Your task to perform on an android device: see creations saved in the google photos Image 0: 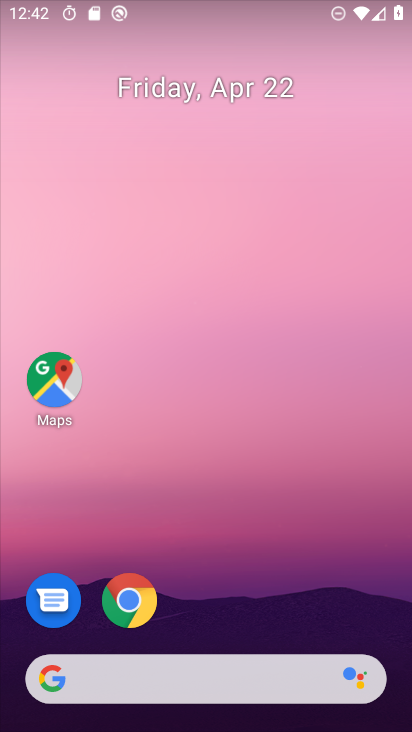
Step 0: drag from (227, 595) to (246, 56)
Your task to perform on an android device: see creations saved in the google photos Image 1: 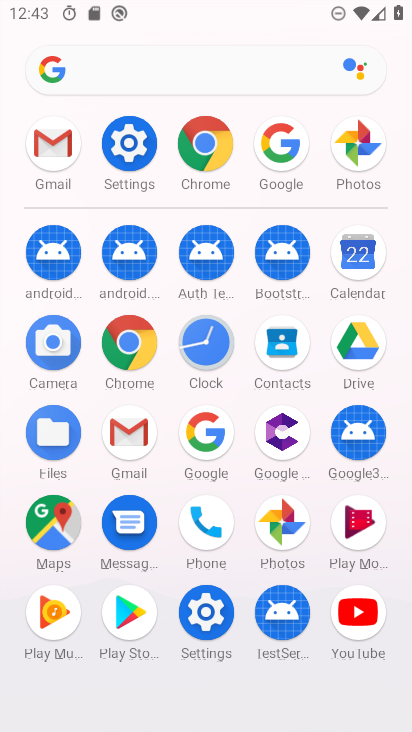
Step 1: click (358, 141)
Your task to perform on an android device: see creations saved in the google photos Image 2: 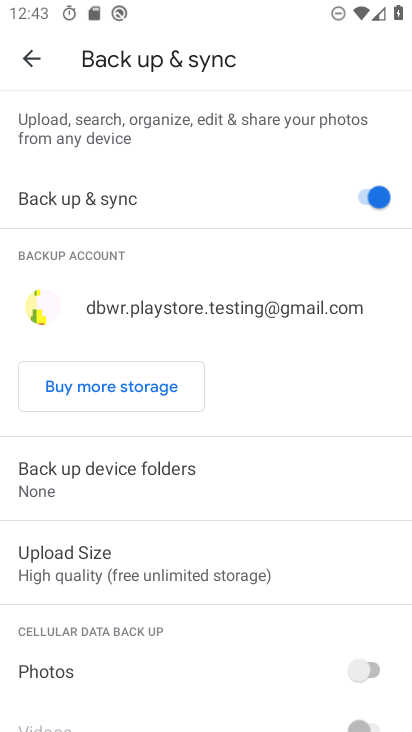
Step 2: press back button
Your task to perform on an android device: see creations saved in the google photos Image 3: 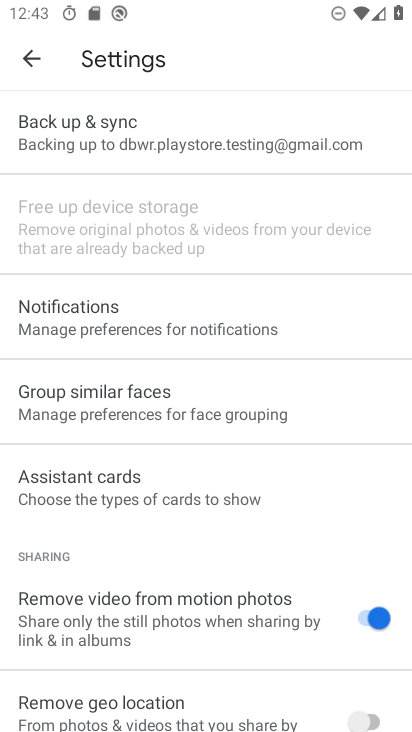
Step 3: press back button
Your task to perform on an android device: see creations saved in the google photos Image 4: 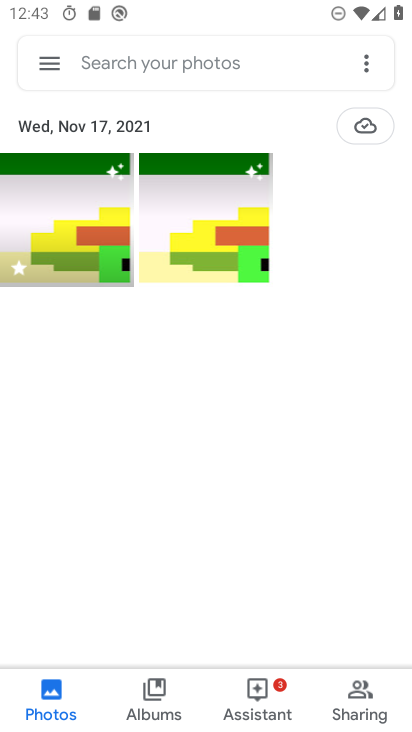
Step 4: click (224, 56)
Your task to perform on an android device: see creations saved in the google photos Image 5: 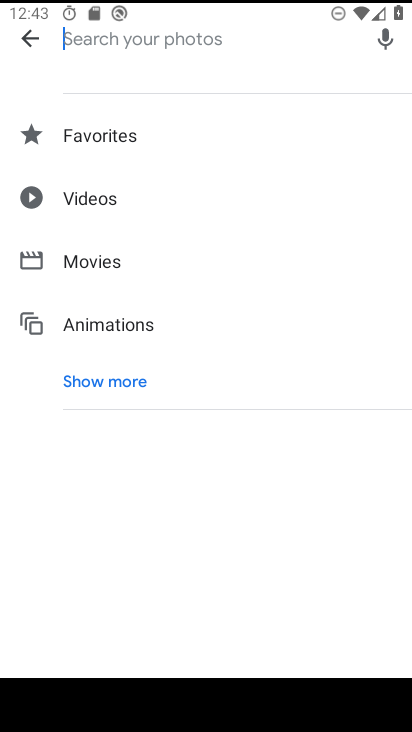
Step 5: click (115, 387)
Your task to perform on an android device: see creations saved in the google photos Image 6: 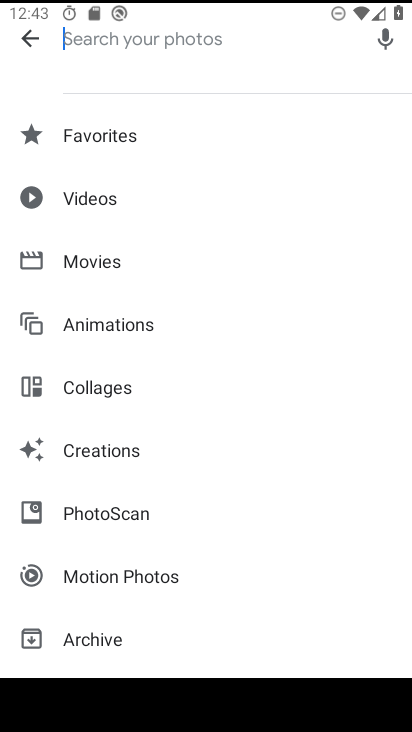
Step 6: click (94, 461)
Your task to perform on an android device: see creations saved in the google photos Image 7: 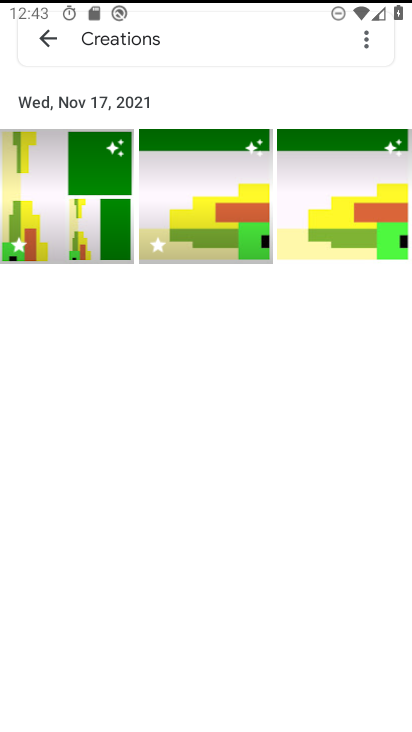
Step 7: click (360, 38)
Your task to perform on an android device: see creations saved in the google photos Image 8: 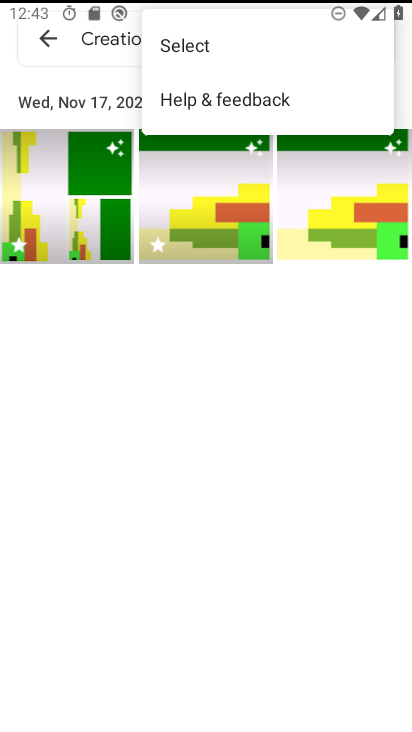
Step 8: click (198, 38)
Your task to perform on an android device: see creations saved in the google photos Image 9: 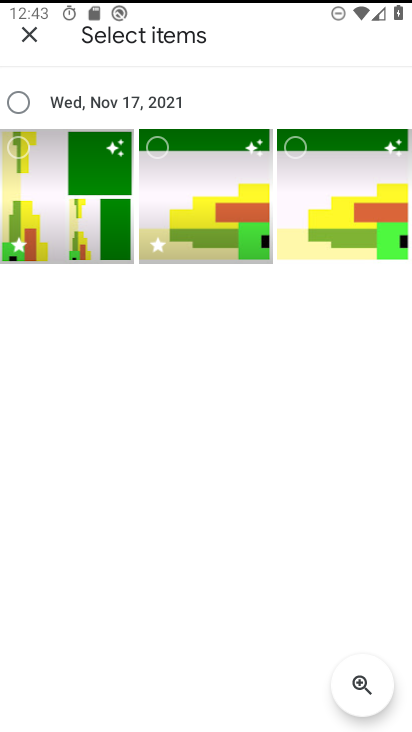
Step 9: click (18, 143)
Your task to perform on an android device: see creations saved in the google photos Image 10: 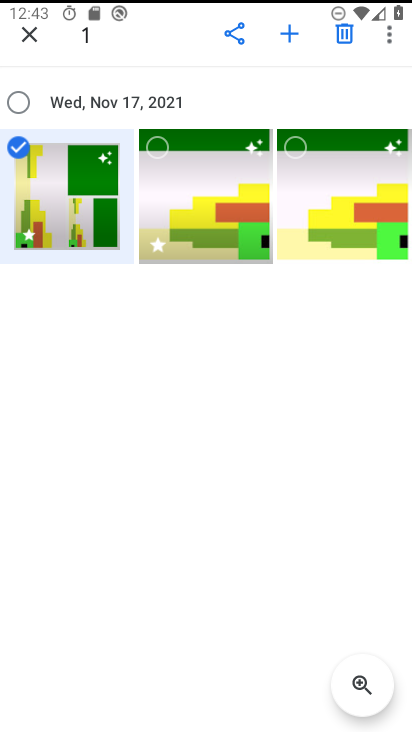
Step 10: click (386, 40)
Your task to perform on an android device: see creations saved in the google photos Image 11: 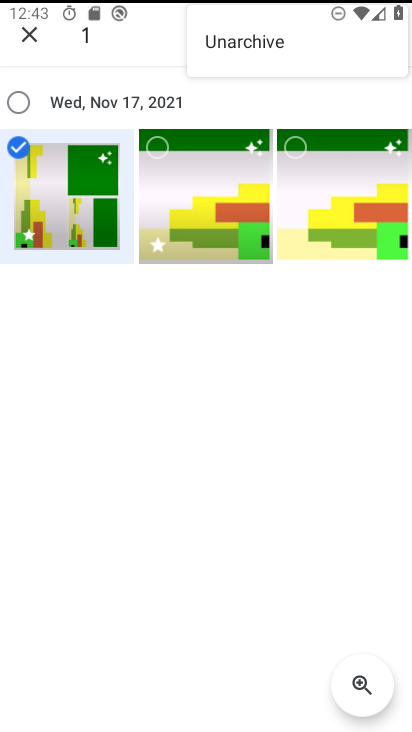
Step 11: click (280, 40)
Your task to perform on an android device: see creations saved in the google photos Image 12: 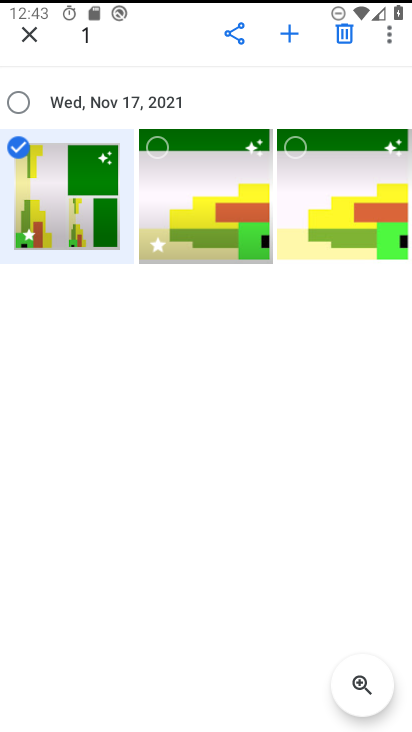
Step 12: click (33, 41)
Your task to perform on an android device: see creations saved in the google photos Image 13: 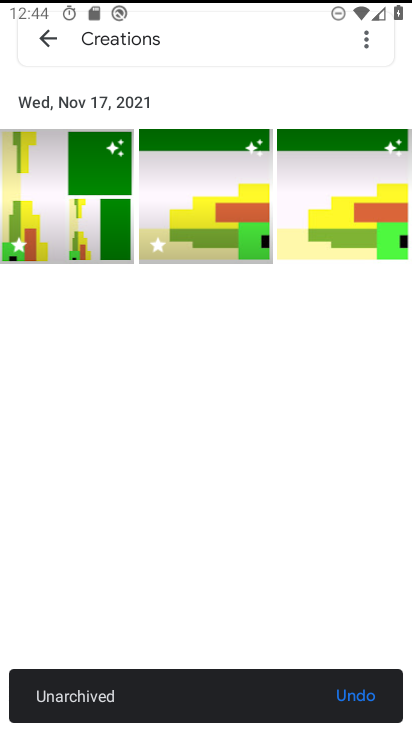
Step 13: click (34, 41)
Your task to perform on an android device: see creations saved in the google photos Image 14: 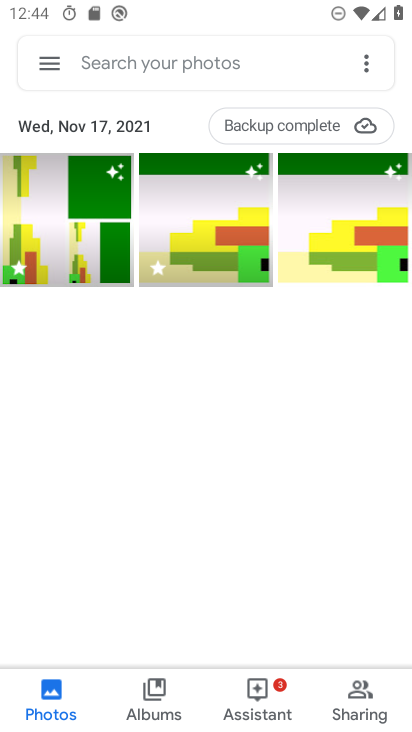
Step 14: task complete